Your task to perform on an android device: toggle translation in the chrome app Image 0: 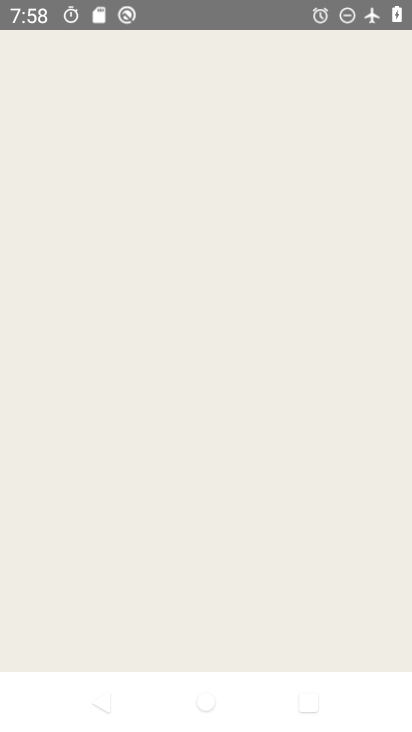
Step 0: drag from (387, 661) to (390, 260)
Your task to perform on an android device: toggle translation in the chrome app Image 1: 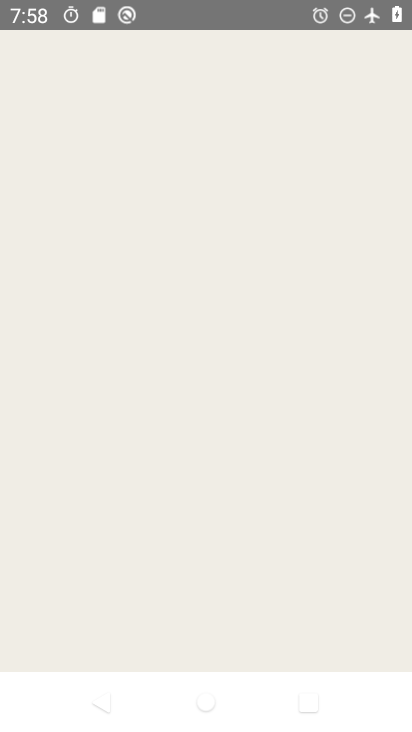
Step 1: press home button
Your task to perform on an android device: toggle translation in the chrome app Image 2: 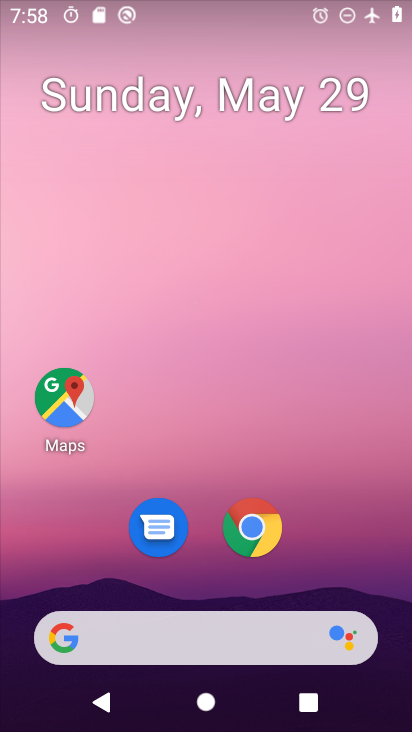
Step 2: drag from (387, 655) to (293, 44)
Your task to perform on an android device: toggle translation in the chrome app Image 3: 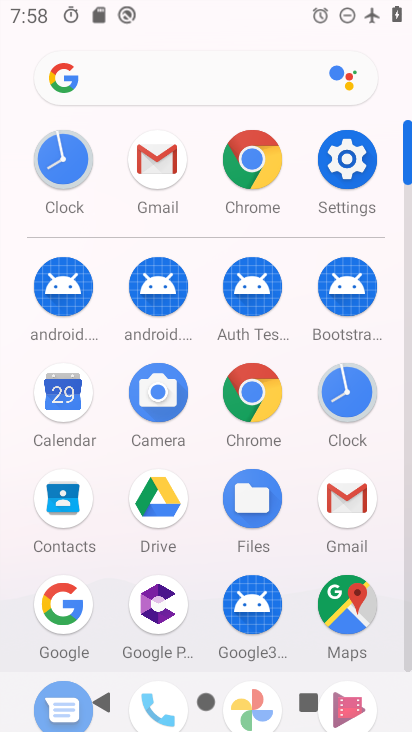
Step 3: click (263, 144)
Your task to perform on an android device: toggle translation in the chrome app Image 4: 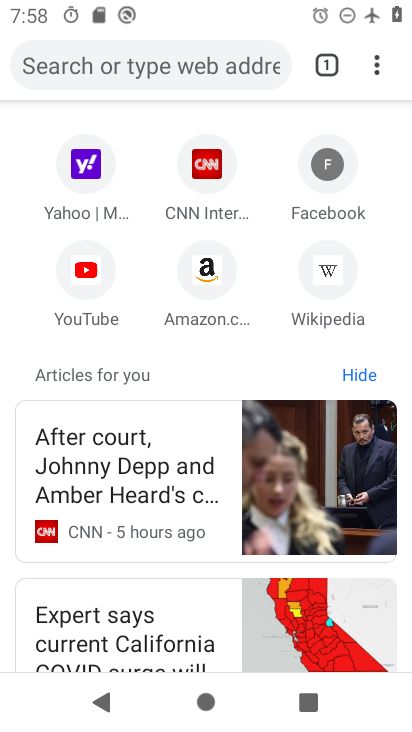
Step 4: click (378, 64)
Your task to perform on an android device: toggle translation in the chrome app Image 5: 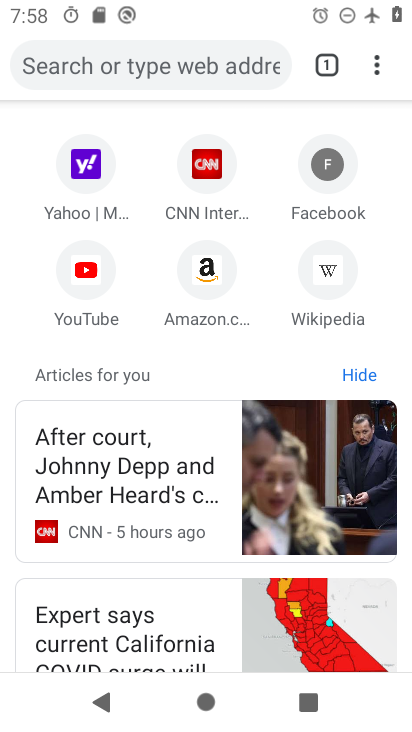
Step 5: click (378, 64)
Your task to perform on an android device: toggle translation in the chrome app Image 6: 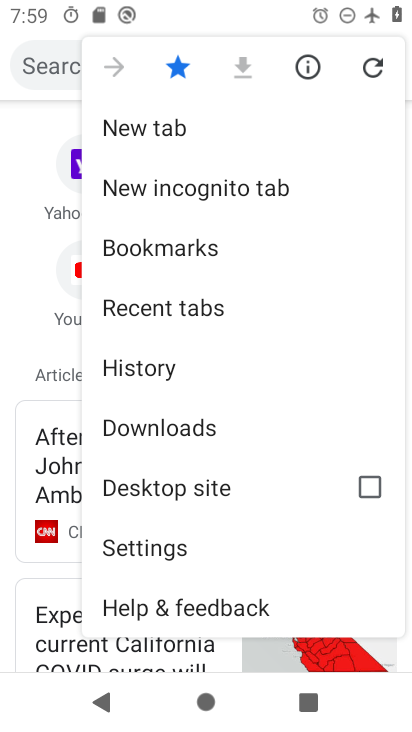
Step 6: click (187, 536)
Your task to perform on an android device: toggle translation in the chrome app Image 7: 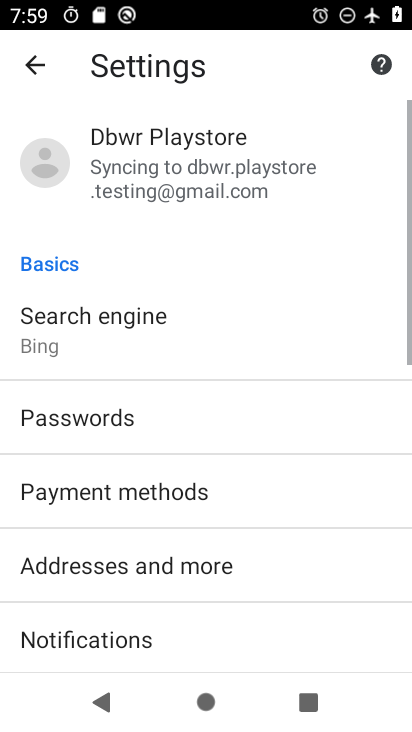
Step 7: drag from (94, 644) to (233, 182)
Your task to perform on an android device: toggle translation in the chrome app Image 8: 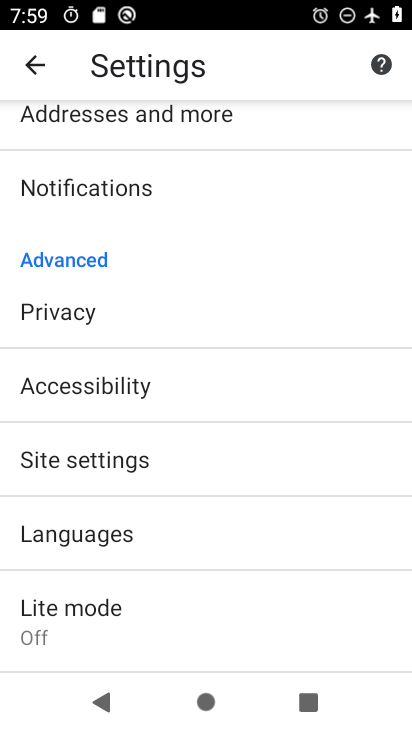
Step 8: click (102, 535)
Your task to perform on an android device: toggle translation in the chrome app Image 9: 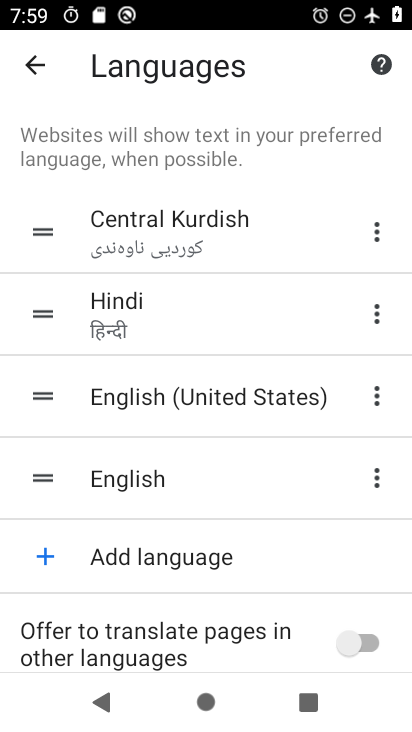
Step 9: click (332, 629)
Your task to perform on an android device: toggle translation in the chrome app Image 10: 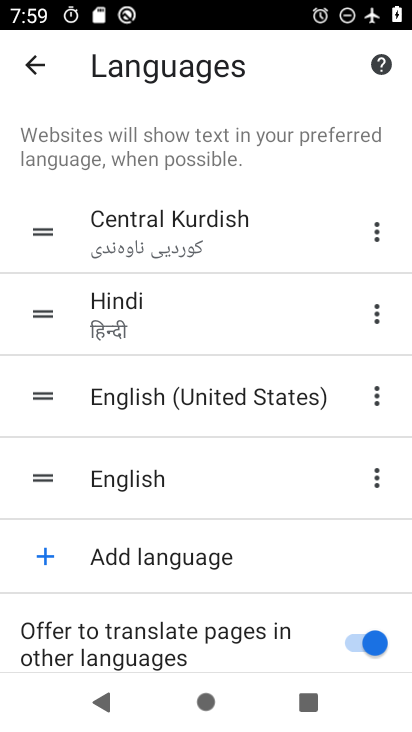
Step 10: task complete